Your task to perform on an android device: Search for vegetarian restaurants on Maps Image 0: 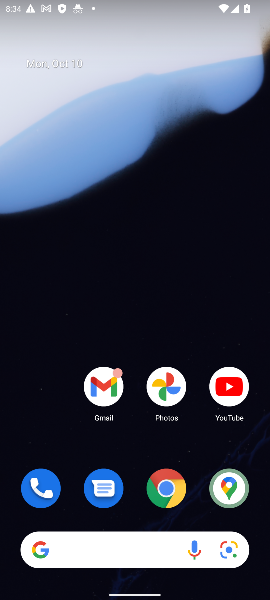
Step 0: drag from (140, 452) to (162, 4)
Your task to perform on an android device: Search for vegetarian restaurants on Maps Image 1: 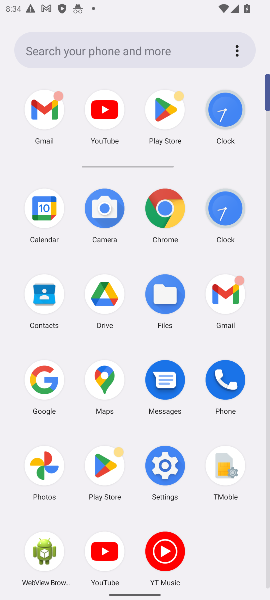
Step 1: click (88, 376)
Your task to perform on an android device: Search for vegetarian restaurants on Maps Image 2: 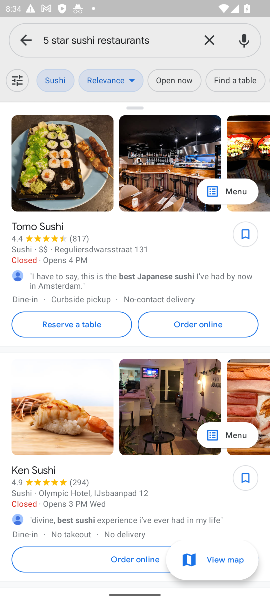
Step 2: click (202, 36)
Your task to perform on an android device: Search for vegetarian restaurants on Maps Image 3: 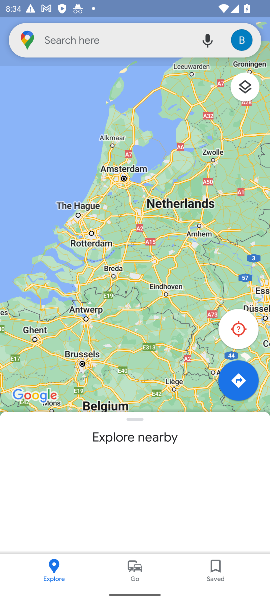
Step 3: click (63, 33)
Your task to perform on an android device: Search for vegetarian restaurants on Maps Image 4: 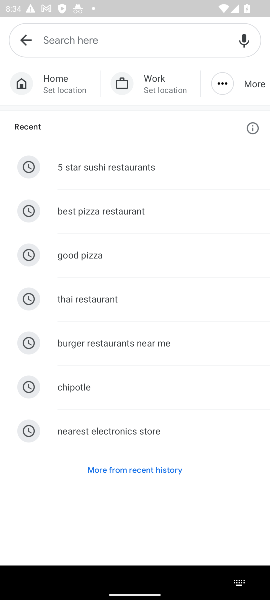
Step 4: type "vegetarian restaurants"
Your task to perform on an android device: Search for vegetarian restaurants on Maps Image 5: 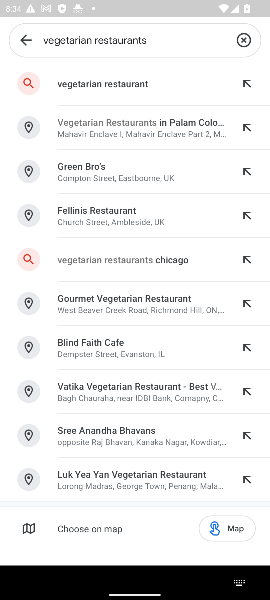
Step 5: press enter
Your task to perform on an android device: Search for vegetarian restaurants on Maps Image 6: 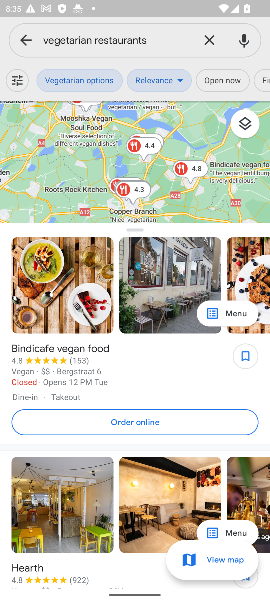
Step 6: task complete